Your task to perform on an android device: star an email in the gmail app Image 0: 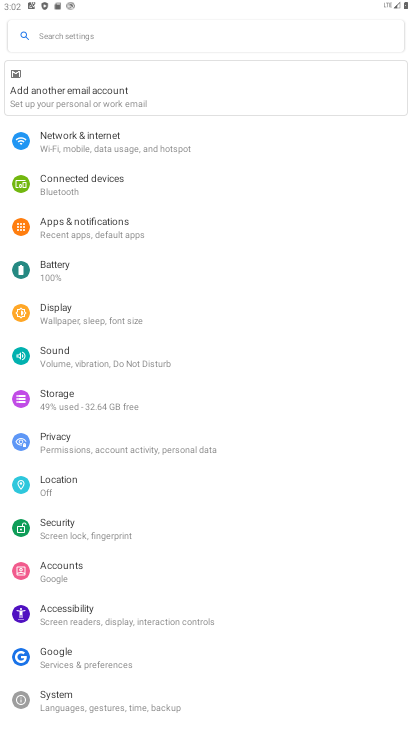
Step 0: press home button
Your task to perform on an android device: star an email in the gmail app Image 1: 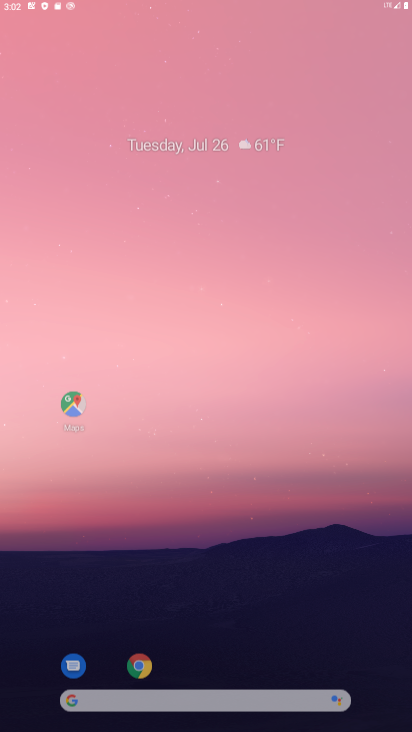
Step 1: drag from (98, 621) to (184, 125)
Your task to perform on an android device: star an email in the gmail app Image 2: 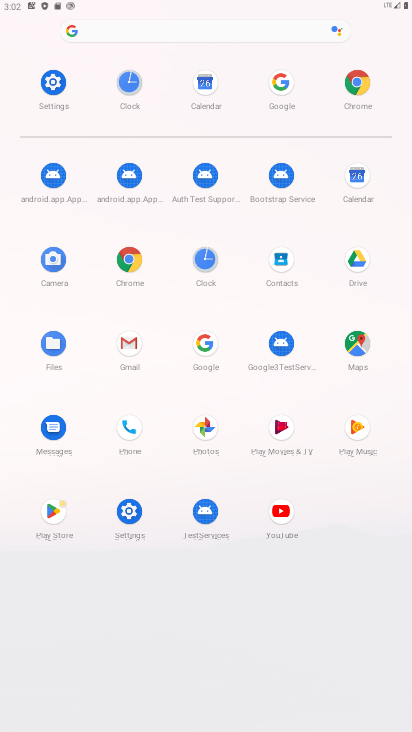
Step 2: click (133, 337)
Your task to perform on an android device: star an email in the gmail app Image 3: 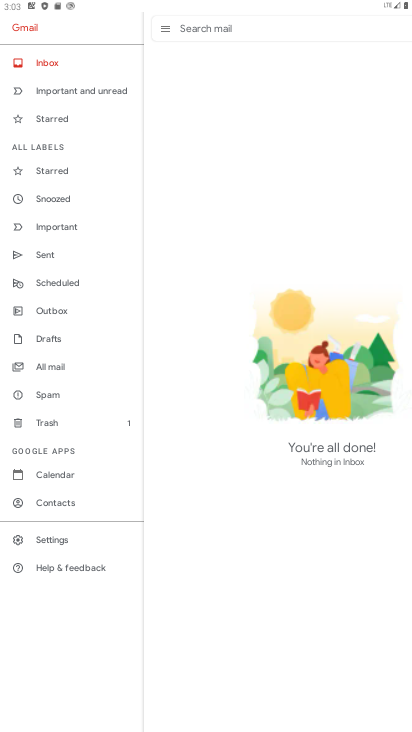
Step 3: drag from (248, 536) to (256, 291)
Your task to perform on an android device: star an email in the gmail app Image 4: 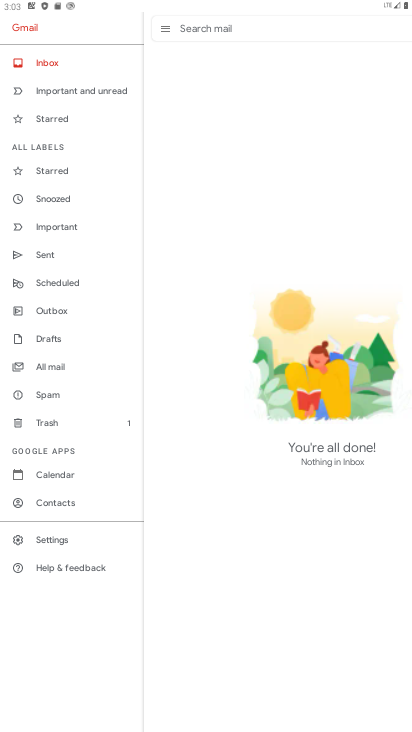
Step 4: click (245, 221)
Your task to perform on an android device: star an email in the gmail app Image 5: 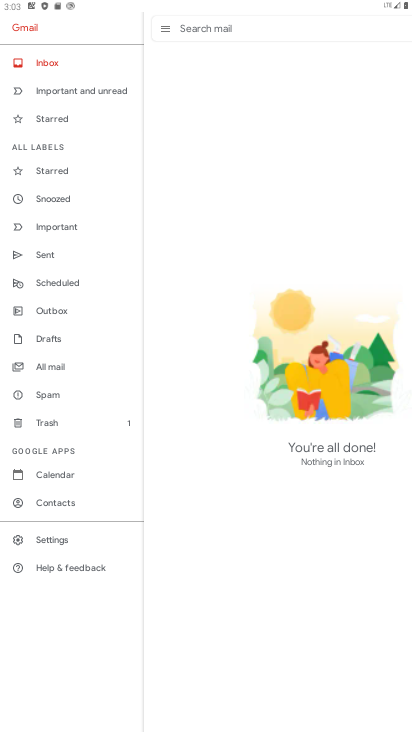
Step 5: task complete